Your task to perform on an android device: Open notification settings Image 0: 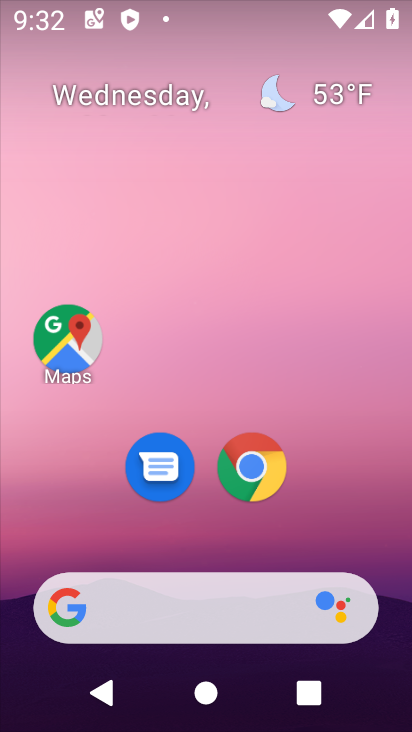
Step 0: press home button
Your task to perform on an android device: Open notification settings Image 1: 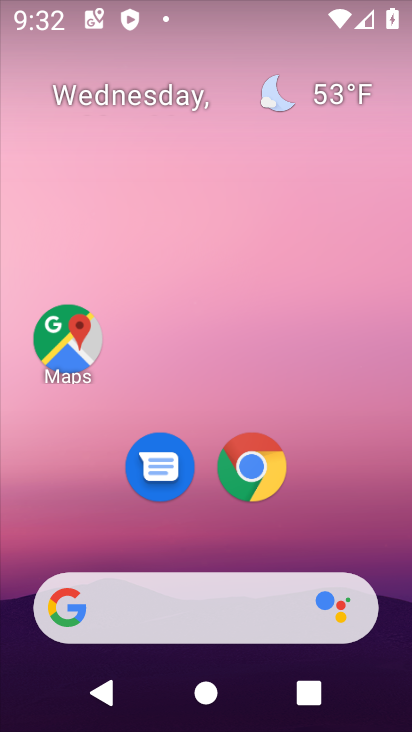
Step 1: drag from (366, 543) to (331, 30)
Your task to perform on an android device: Open notification settings Image 2: 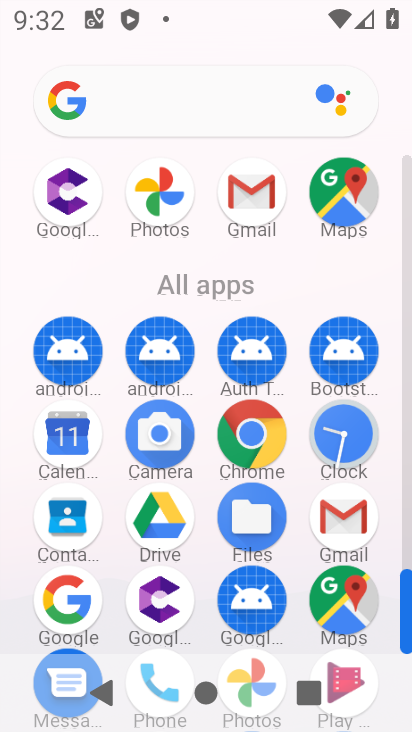
Step 2: drag from (407, 598) to (401, 703)
Your task to perform on an android device: Open notification settings Image 3: 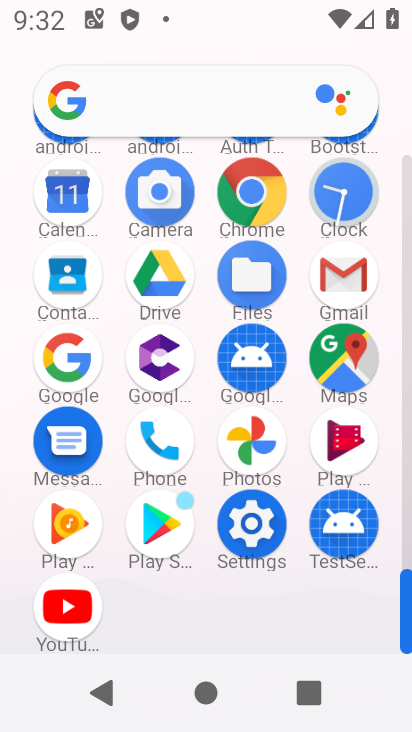
Step 3: click (255, 535)
Your task to perform on an android device: Open notification settings Image 4: 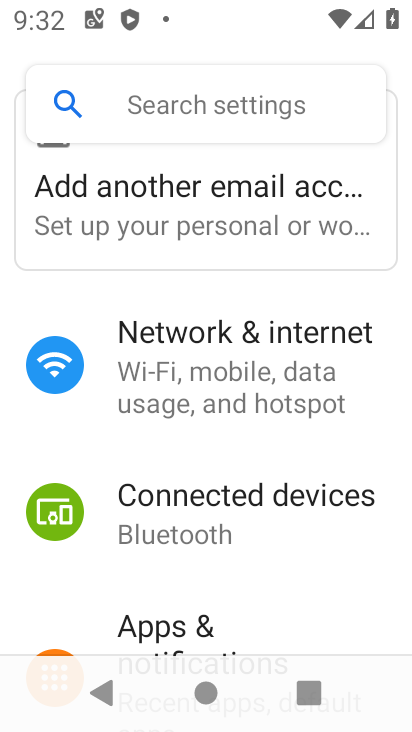
Step 4: click (197, 587)
Your task to perform on an android device: Open notification settings Image 5: 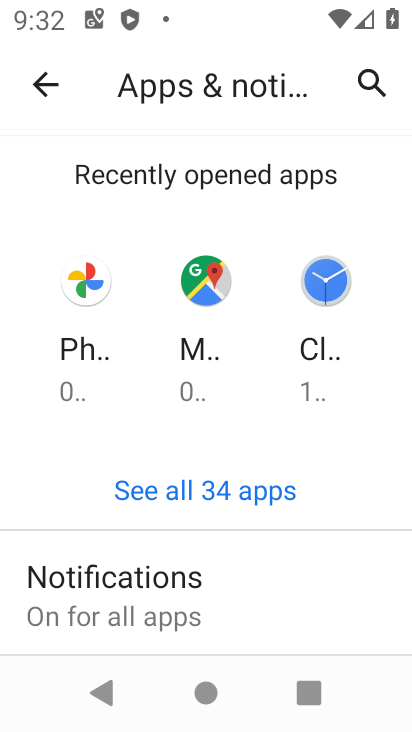
Step 5: task complete